Your task to perform on an android device: Go to accessibility settings Image 0: 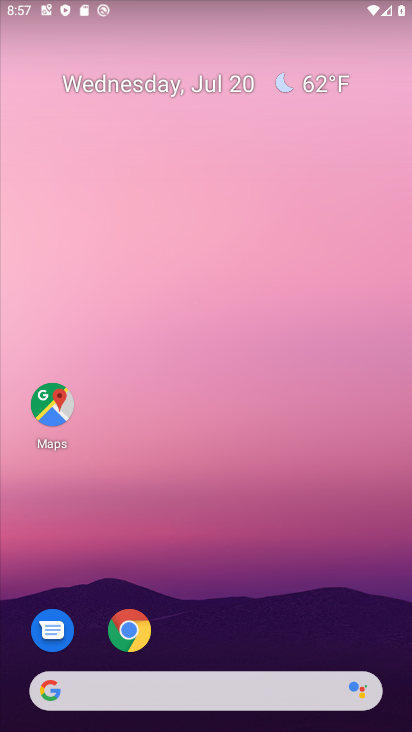
Step 0: drag from (183, 673) to (183, 130)
Your task to perform on an android device: Go to accessibility settings Image 1: 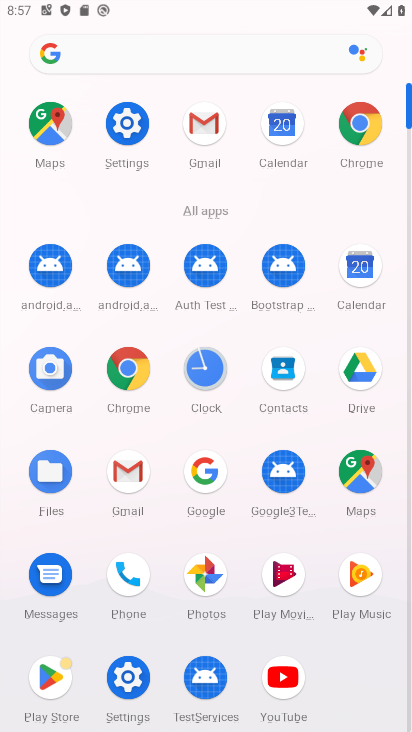
Step 1: click (131, 135)
Your task to perform on an android device: Go to accessibility settings Image 2: 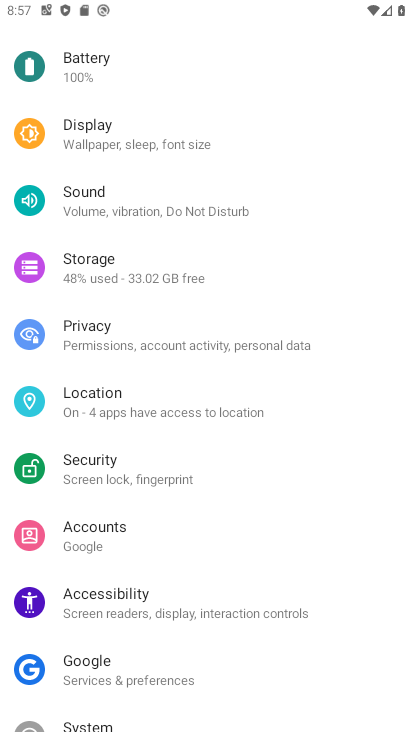
Step 2: click (107, 616)
Your task to perform on an android device: Go to accessibility settings Image 3: 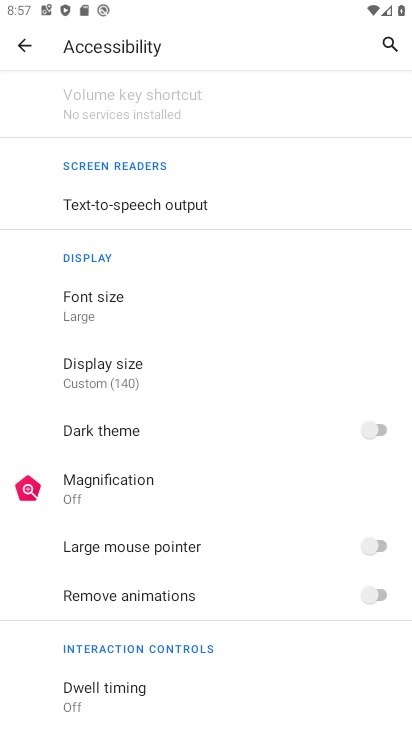
Step 3: task complete